Your task to perform on an android device: toggle javascript in the chrome app Image 0: 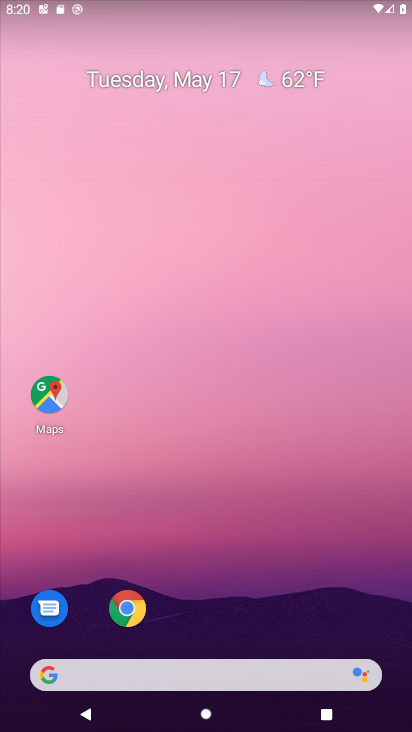
Step 0: drag from (354, 613) to (374, 143)
Your task to perform on an android device: toggle javascript in the chrome app Image 1: 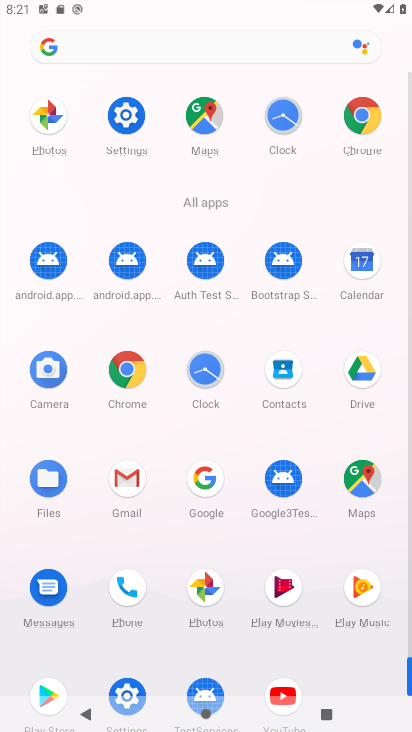
Step 1: click (371, 117)
Your task to perform on an android device: toggle javascript in the chrome app Image 2: 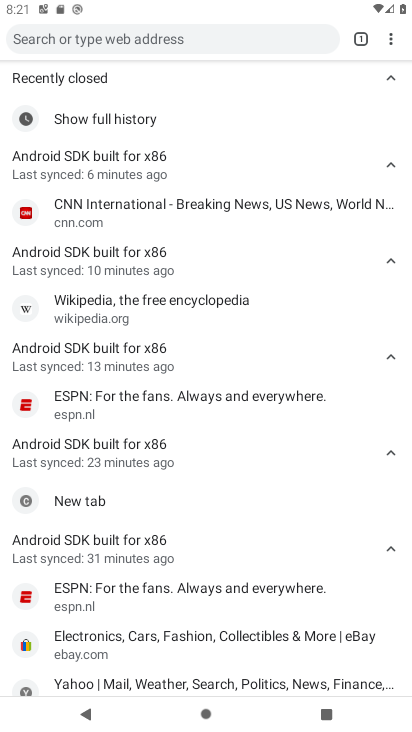
Step 2: click (391, 43)
Your task to perform on an android device: toggle javascript in the chrome app Image 3: 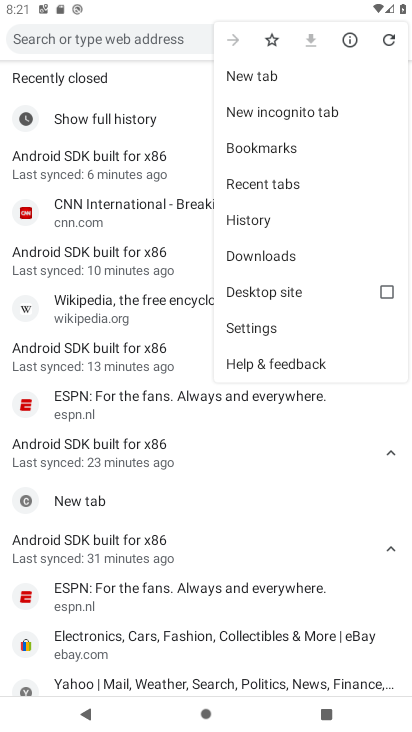
Step 3: click (304, 332)
Your task to perform on an android device: toggle javascript in the chrome app Image 4: 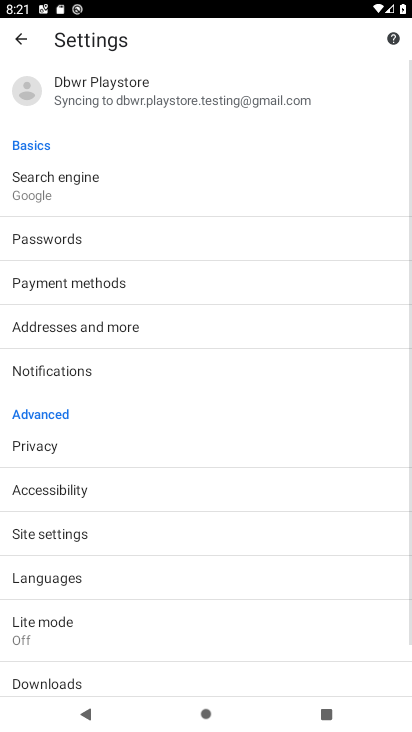
Step 4: drag from (299, 421) to (320, 317)
Your task to perform on an android device: toggle javascript in the chrome app Image 5: 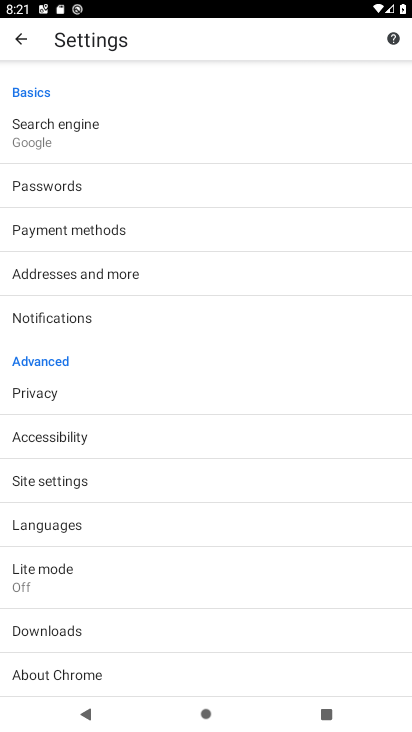
Step 5: drag from (327, 399) to (325, 266)
Your task to perform on an android device: toggle javascript in the chrome app Image 6: 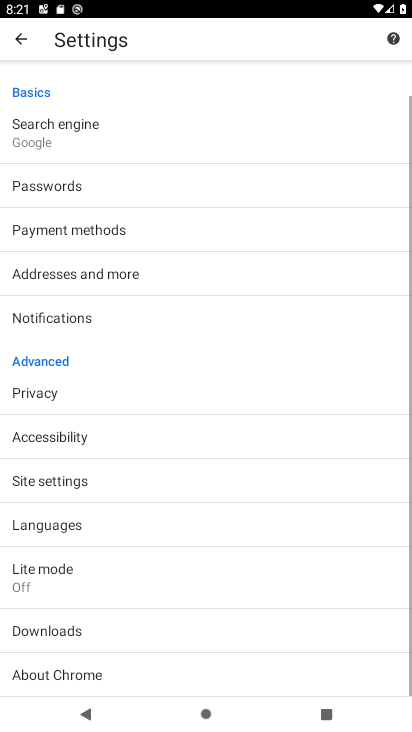
Step 6: drag from (318, 198) to (312, 296)
Your task to perform on an android device: toggle javascript in the chrome app Image 7: 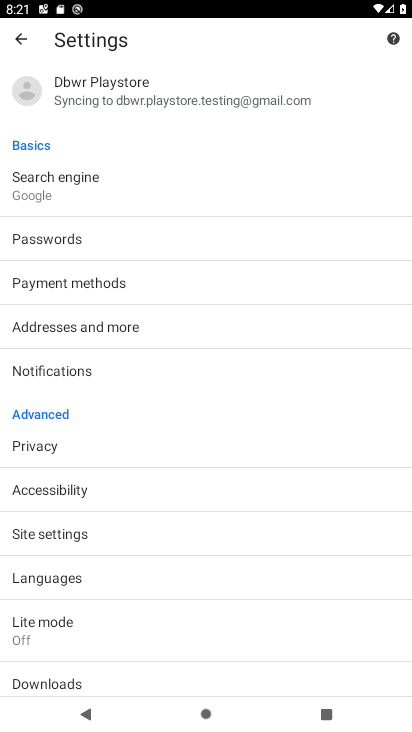
Step 7: drag from (312, 362) to (312, 304)
Your task to perform on an android device: toggle javascript in the chrome app Image 8: 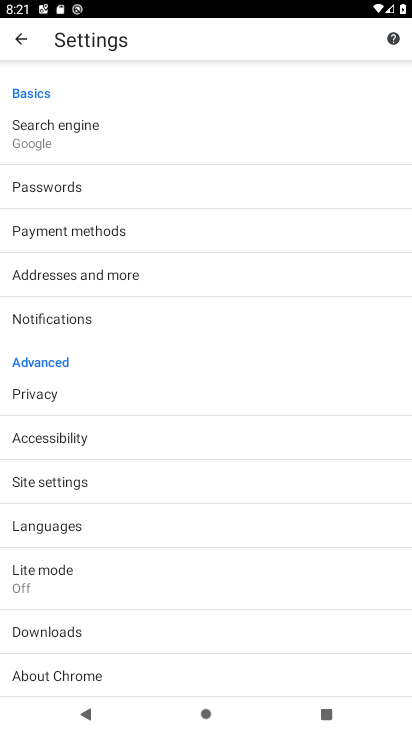
Step 8: drag from (309, 416) to (324, 330)
Your task to perform on an android device: toggle javascript in the chrome app Image 9: 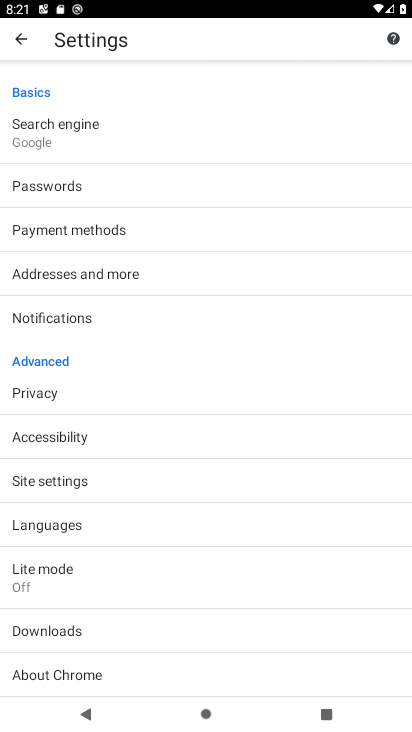
Step 9: click (258, 483)
Your task to perform on an android device: toggle javascript in the chrome app Image 10: 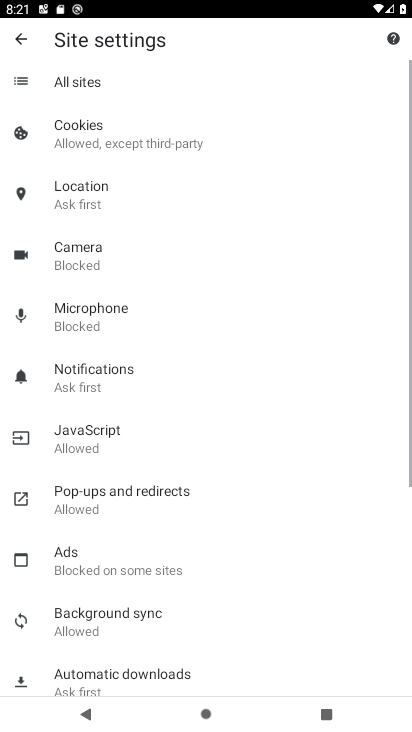
Step 10: drag from (322, 561) to (334, 484)
Your task to perform on an android device: toggle javascript in the chrome app Image 11: 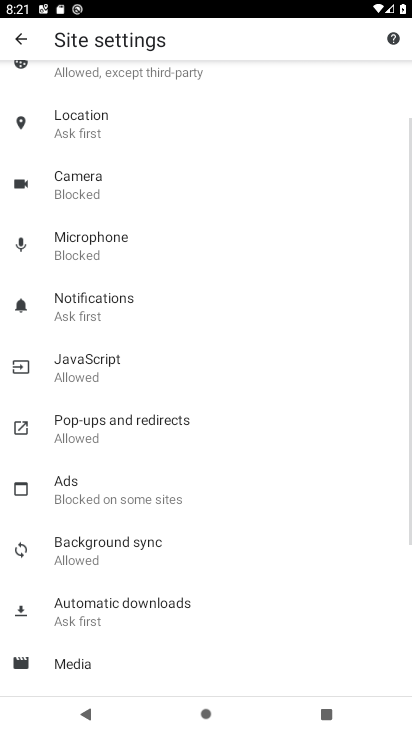
Step 11: drag from (333, 573) to (346, 491)
Your task to perform on an android device: toggle javascript in the chrome app Image 12: 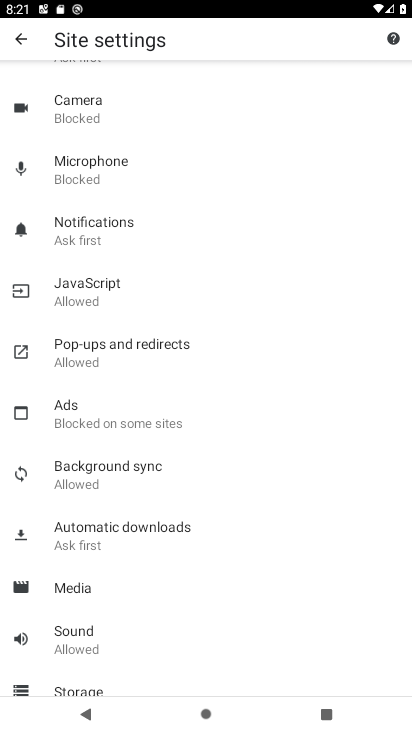
Step 12: drag from (353, 541) to (354, 463)
Your task to perform on an android device: toggle javascript in the chrome app Image 13: 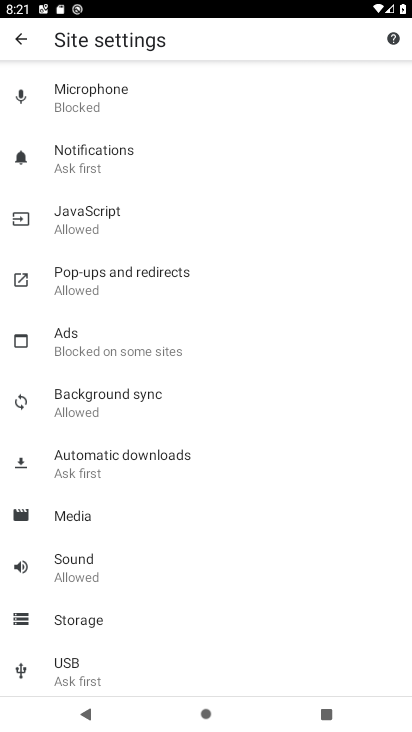
Step 13: drag from (353, 547) to (357, 456)
Your task to perform on an android device: toggle javascript in the chrome app Image 14: 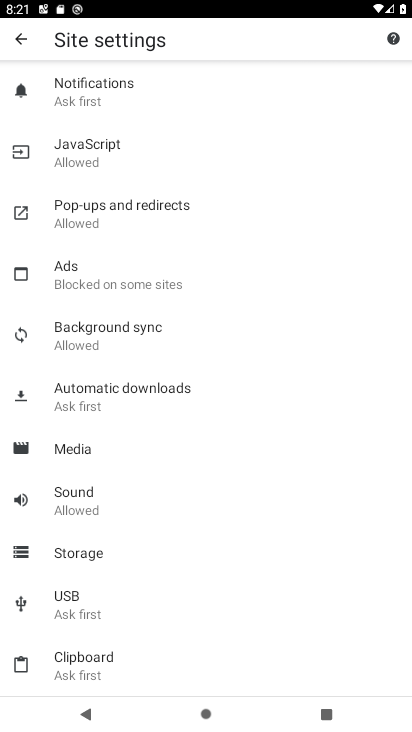
Step 14: drag from (315, 561) to (330, 467)
Your task to perform on an android device: toggle javascript in the chrome app Image 15: 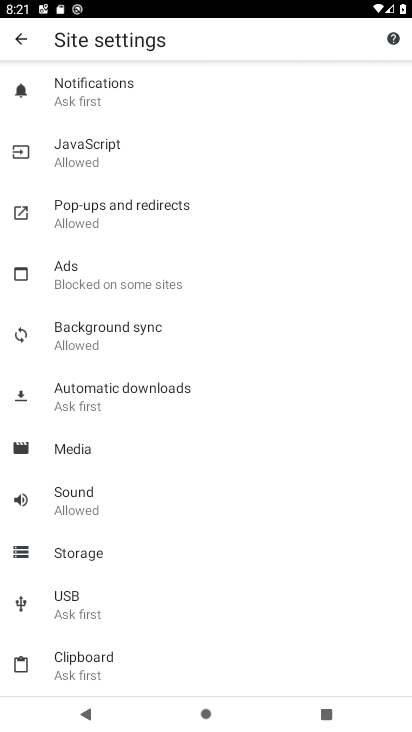
Step 15: drag from (334, 404) to (331, 443)
Your task to perform on an android device: toggle javascript in the chrome app Image 16: 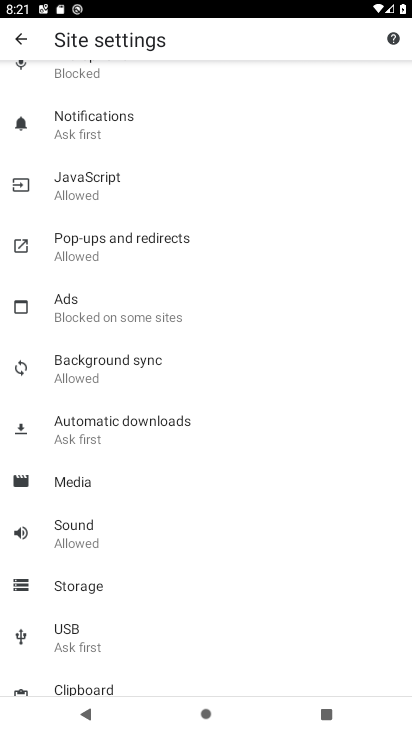
Step 16: click (335, 425)
Your task to perform on an android device: toggle javascript in the chrome app Image 17: 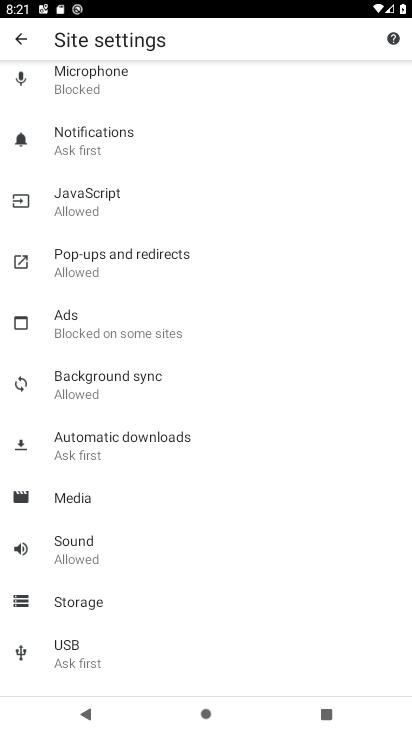
Step 17: drag from (338, 405) to (330, 440)
Your task to perform on an android device: toggle javascript in the chrome app Image 18: 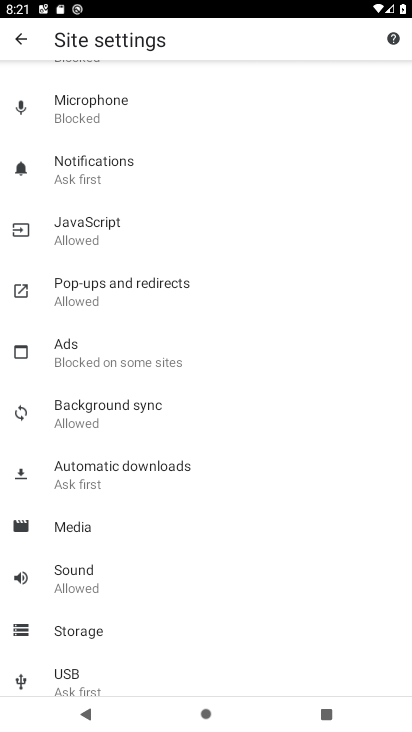
Step 18: drag from (365, 316) to (362, 400)
Your task to perform on an android device: toggle javascript in the chrome app Image 19: 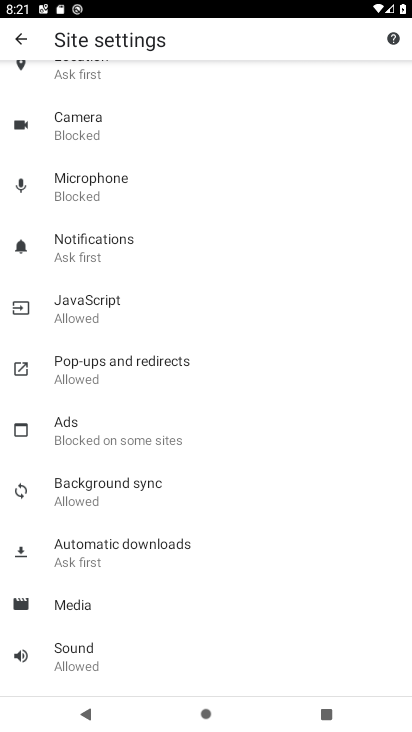
Step 19: click (143, 309)
Your task to perform on an android device: toggle javascript in the chrome app Image 20: 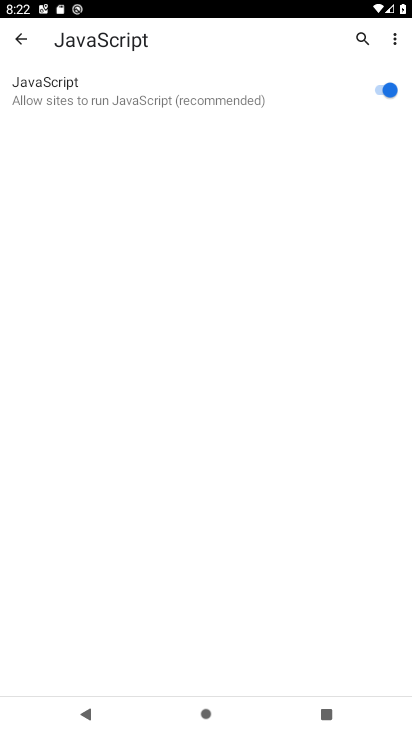
Step 20: click (389, 91)
Your task to perform on an android device: toggle javascript in the chrome app Image 21: 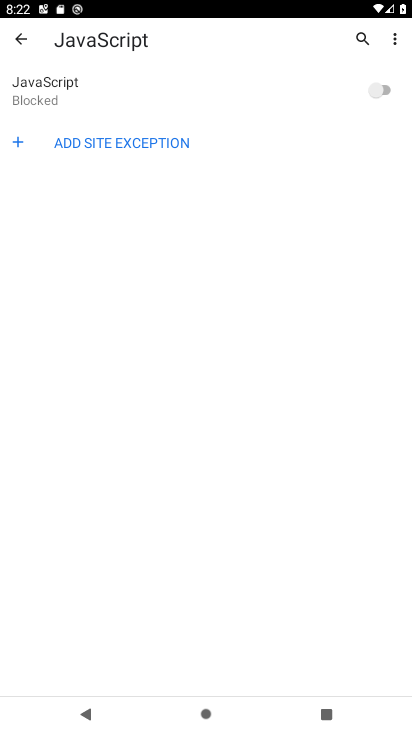
Step 21: task complete